Your task to perform on an android device: Search for seafood restaurants on Google Maps Image 0: 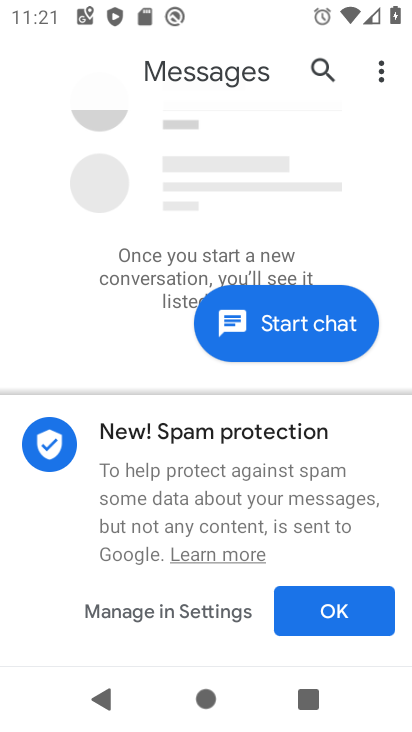
Step 0: press home button
Your task to perform on an android device: Search for seafood restaurants on Google Maps Image 1: 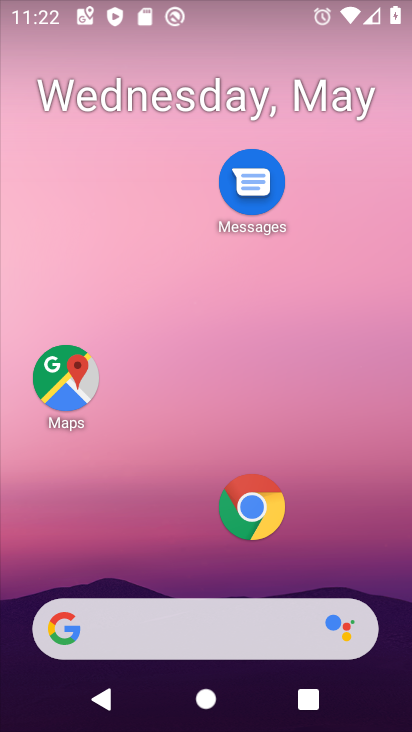
Step 1: click (62, 375)
Your task to perform on an android device: Search for seafood restaurants on Google Maps Image 2: 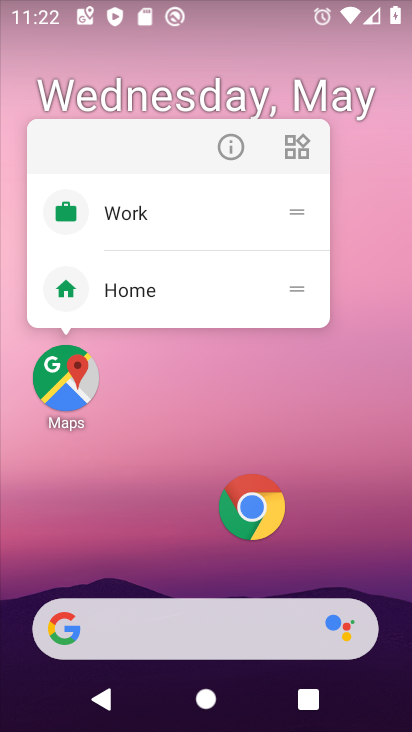
Step 2: click (64, 374)
Your task to perform on an android device: Search for seafood restaurants on Google Maps Image 3: 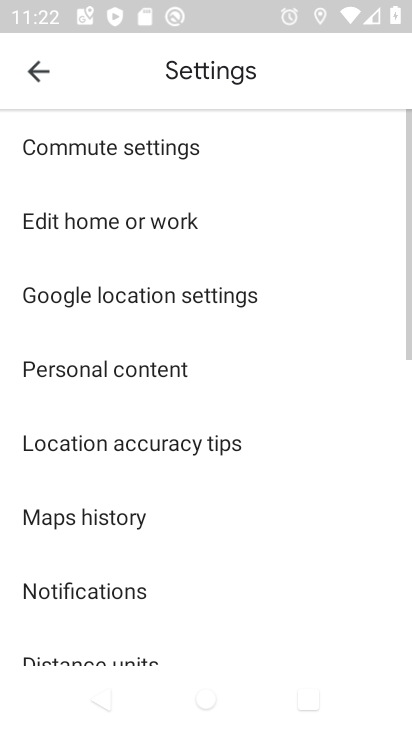
Step 3: click (40, 81)
Your task to perform on an android device: Search for seafood restaurants on Google Maps Image 4: 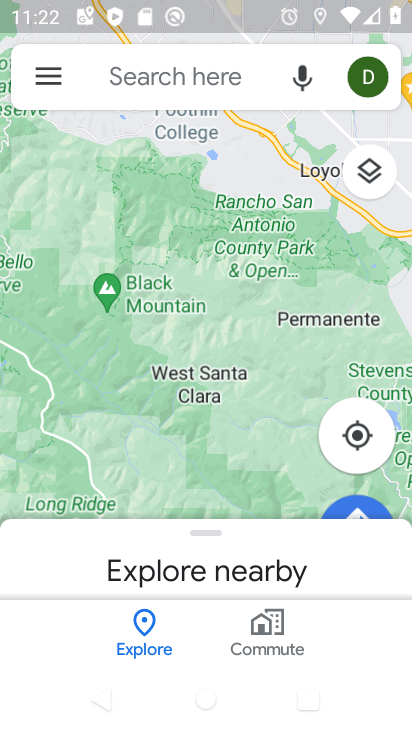
Step 4: click (144, 74)
Your task to perform on an android device: Search for seafood restaurants on Google Maps Image 5: 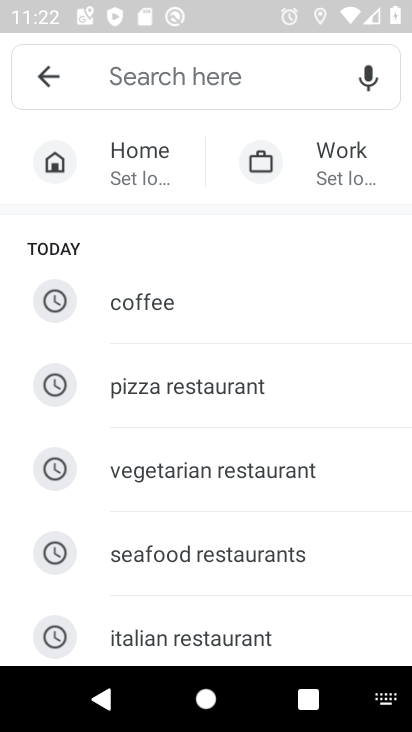
Step 5: click (188, 565)
Your task to perform on an android device: Search for seafood restaurants on Google Maps Image 6: 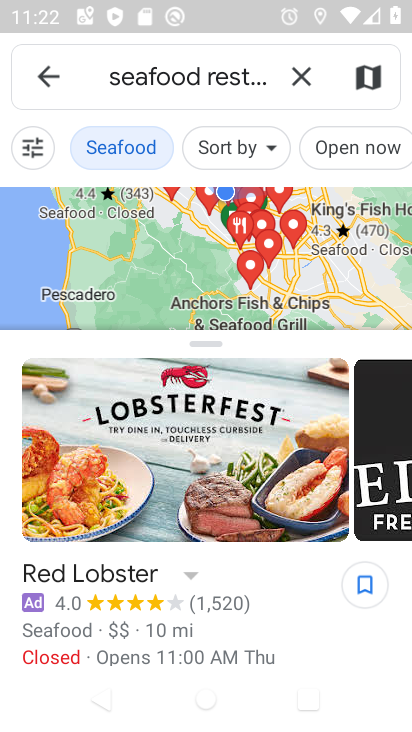
Step 6: task complete